Your task to perform on an android device: What's the weather? Image 0: 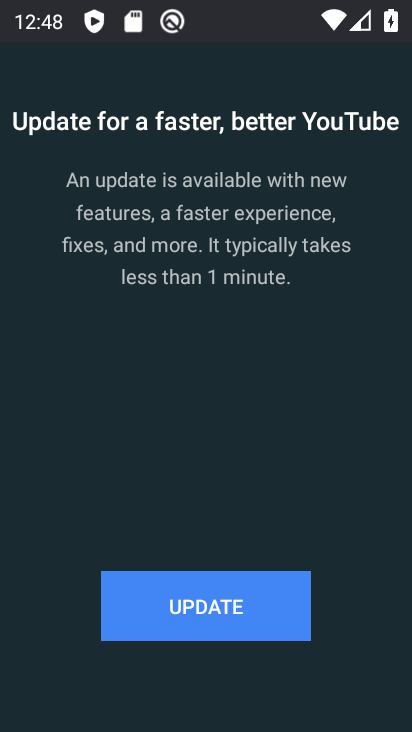
Step 0: press back button
Your task to perform on an android device: What's the weather? Image 1: 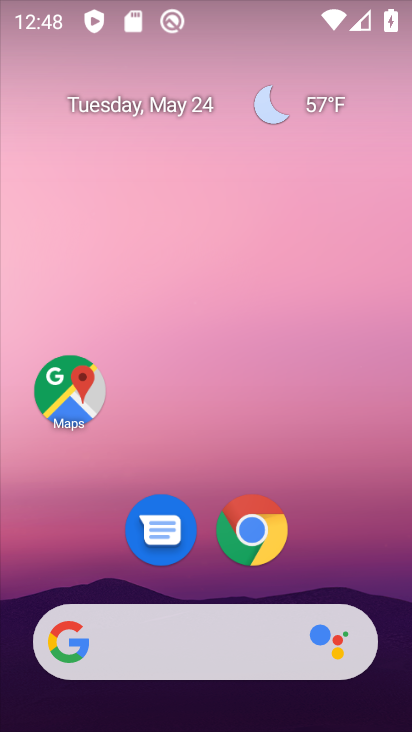
Step 1: click (203, 655)
Your task to perform on an android device: What's the weather? Image 2: 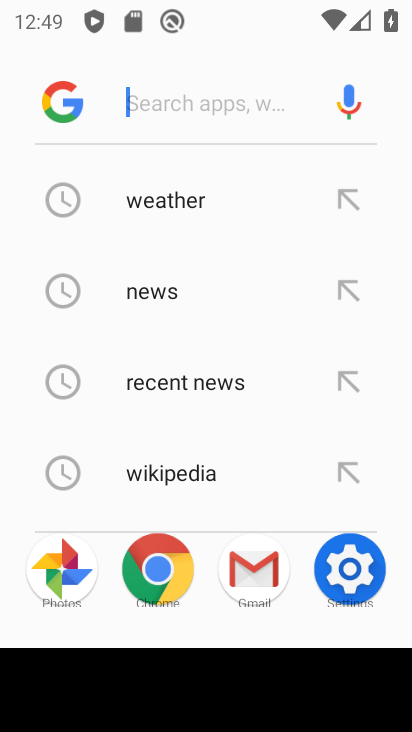
Step 2: type "what's the weather"
Your task to perform on an android device: What's the weather? Image 3: 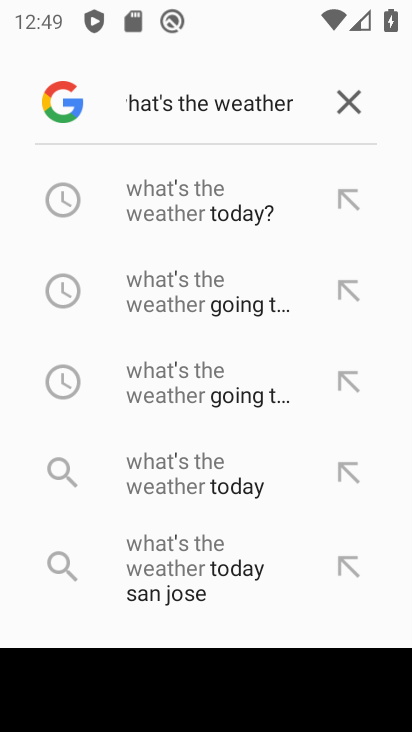
Step 3: click (178, 223)
Your task to perform on an android device: What's the weather? Image 4: 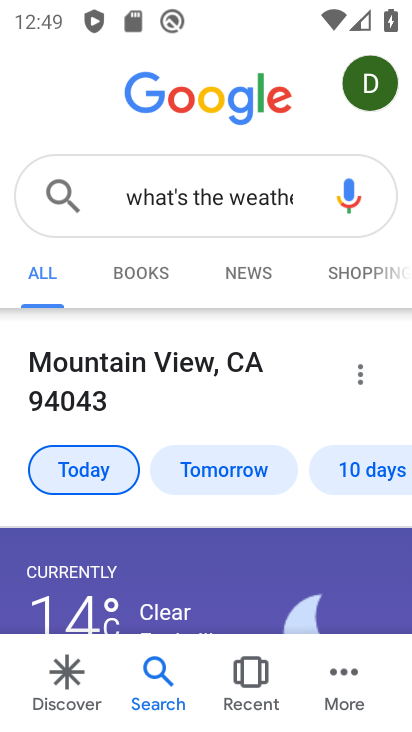
Step 4: task complete